Your task to perform on an android device: turn off priority inbox in the gmail app Image 0: 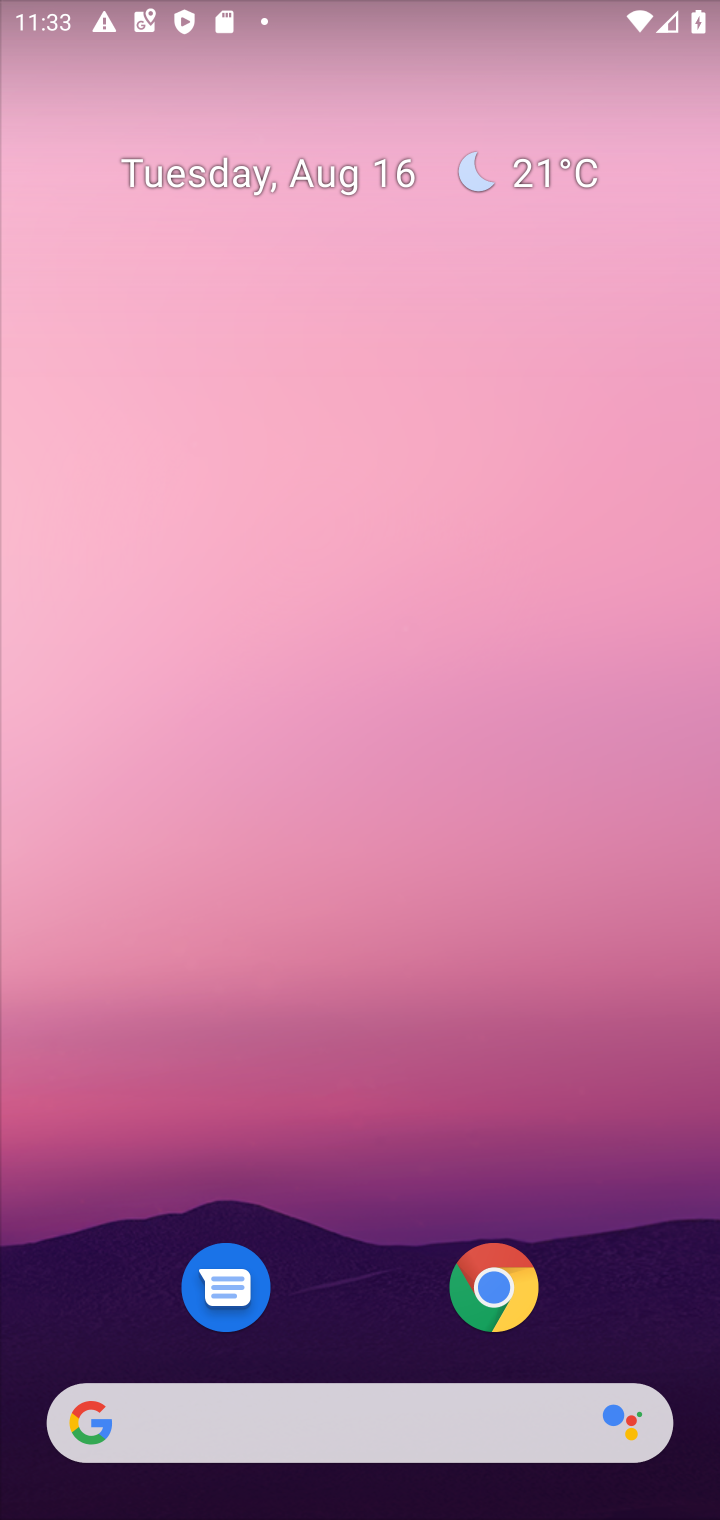
Step 0: drag from (656, 1325) to (561, 314)
Your task to perform on an android device: turn off priority inbox in the gmail app Image 1: 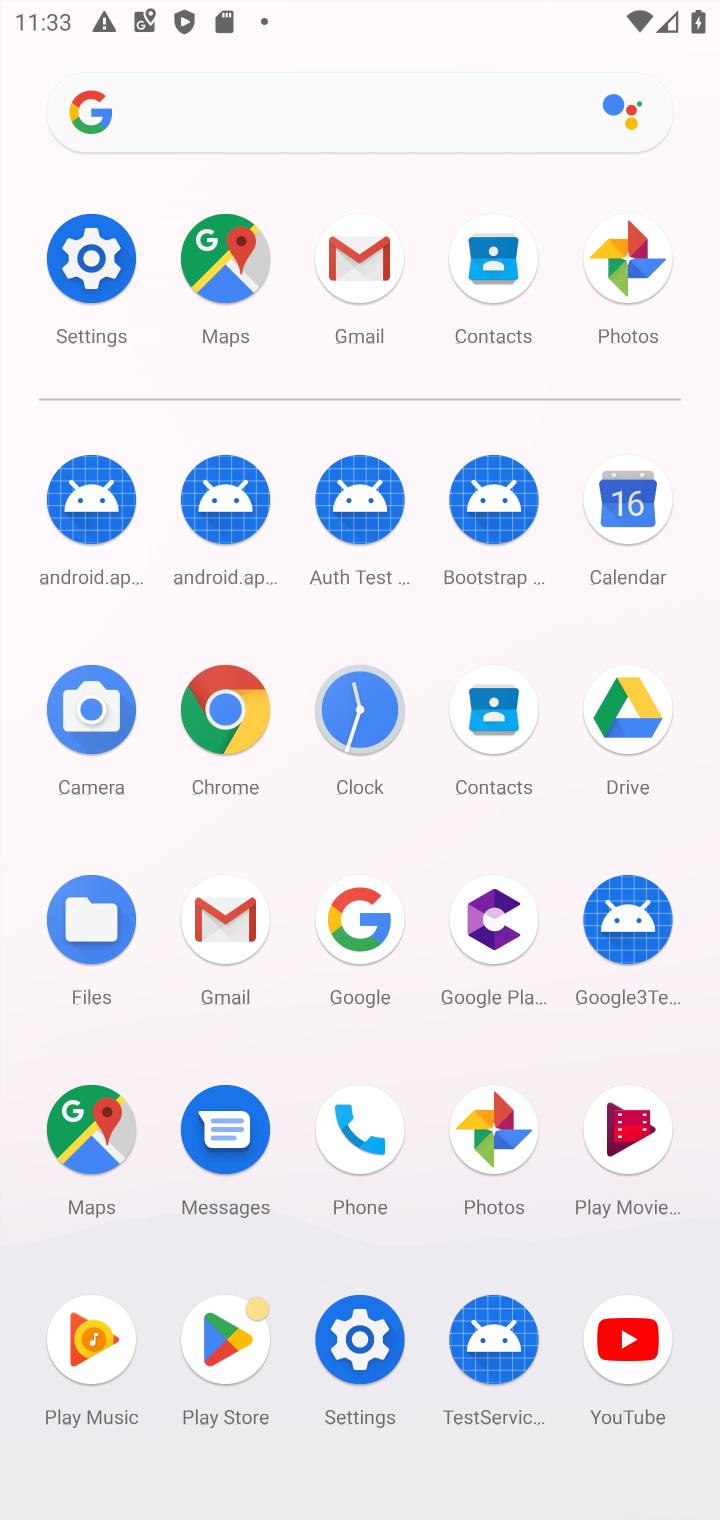
Step 1: click (222, 921)
Your task to perform on an android device: turn off priority inbox in the gmail app Image 2: 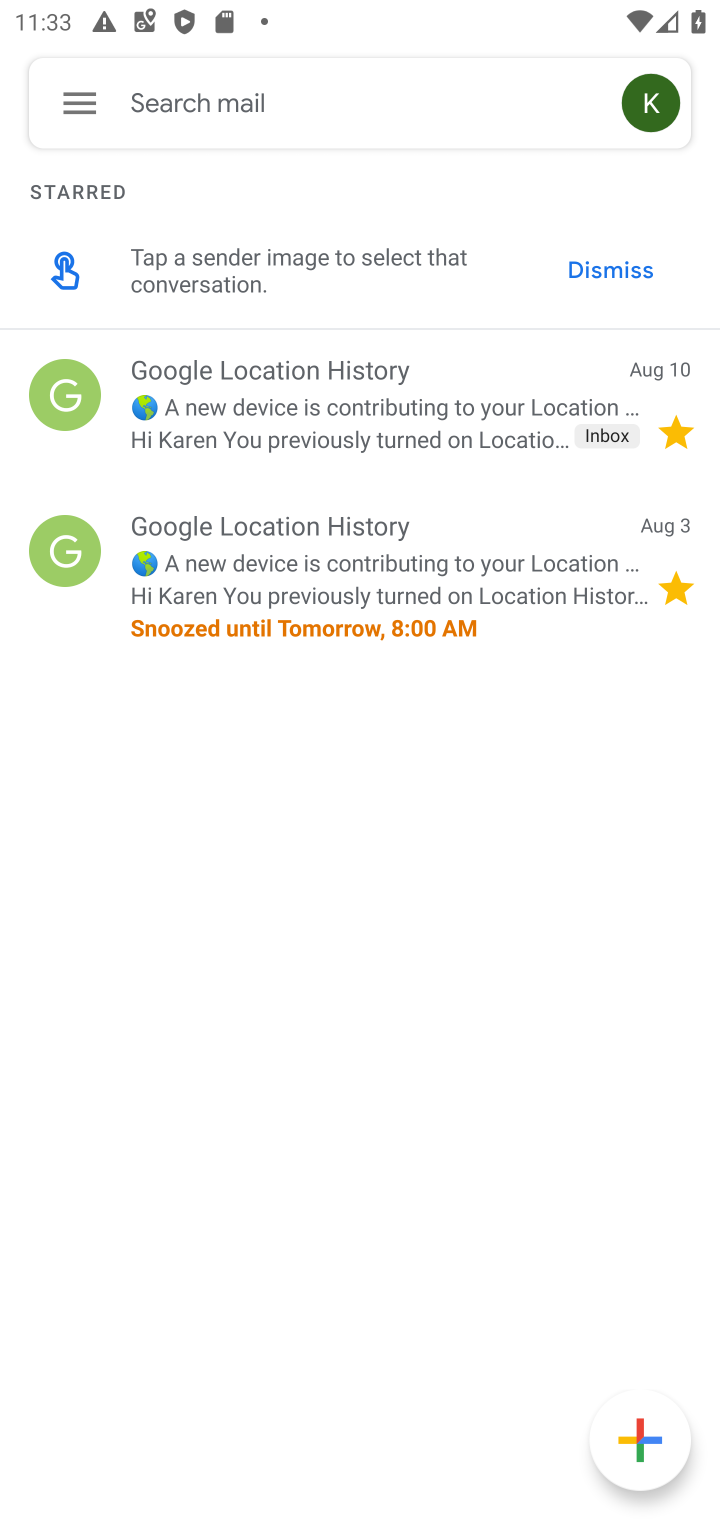
Step 2: click (70, 101)
Your task to perform on an android device: turn off priority inbox in the gmail app Image 3: 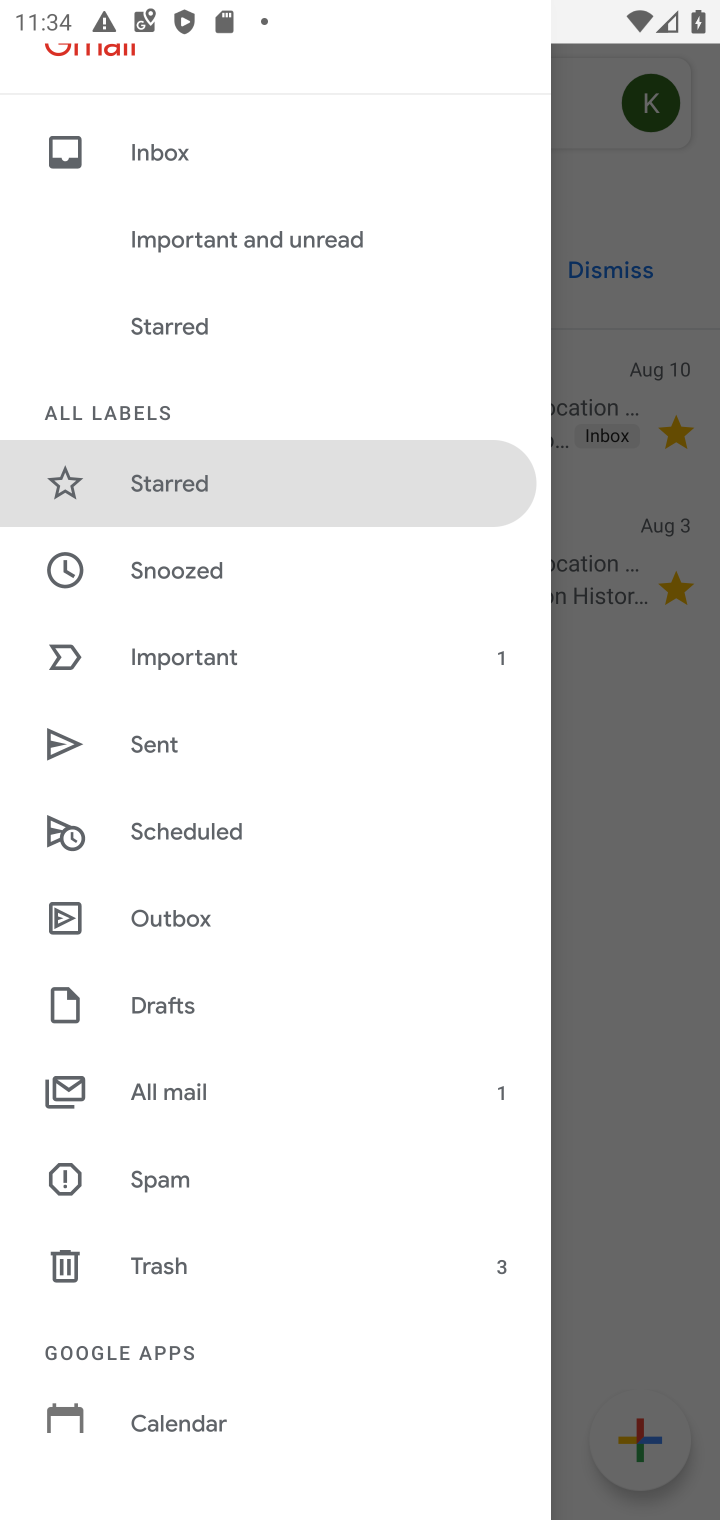
Step 3: drag from (300, 1419) to (384, 566)
Your task to perform on an android device: turn off priority inbox in the gmail app Image 4: 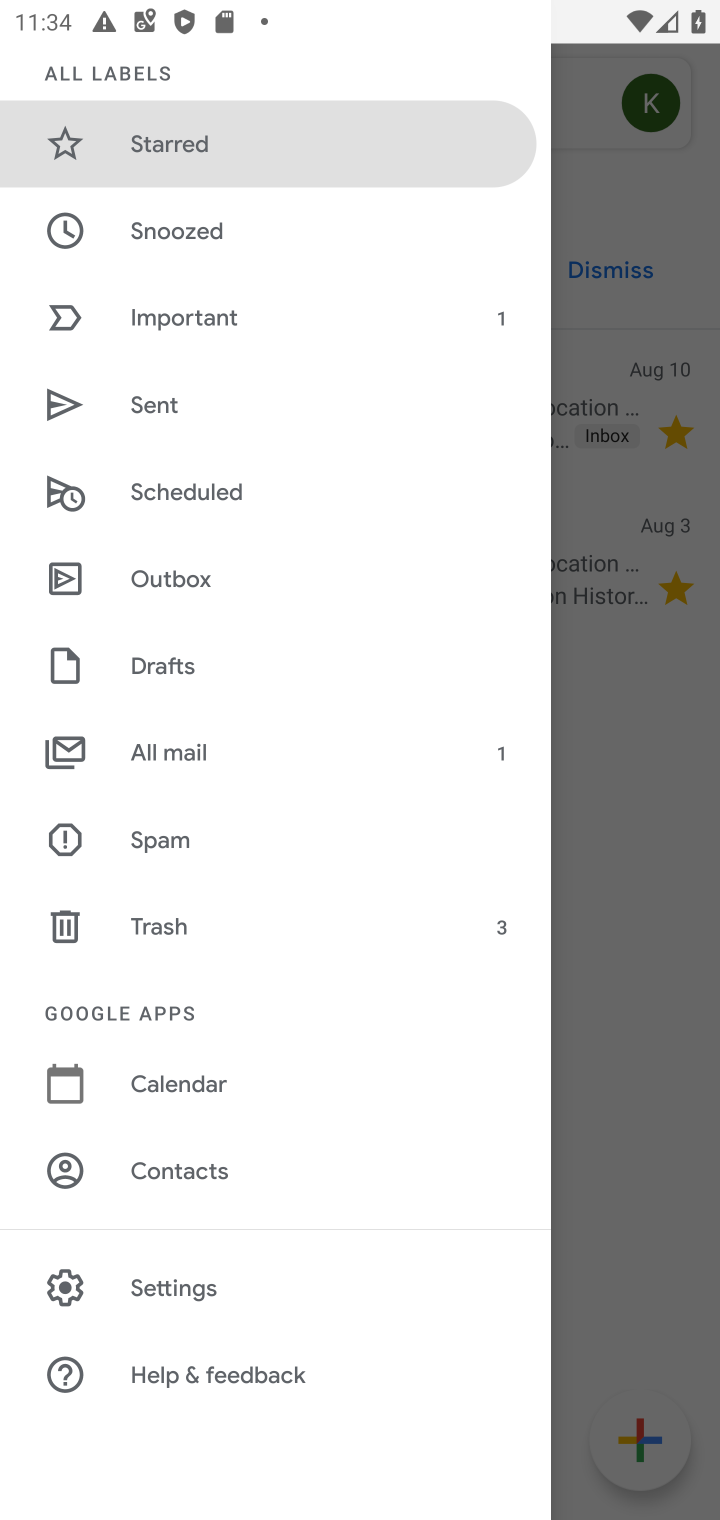
Step 4: click (182, 1280)
Your task to perform on an android device: turn off priority inbox in the gmail app Image 5: 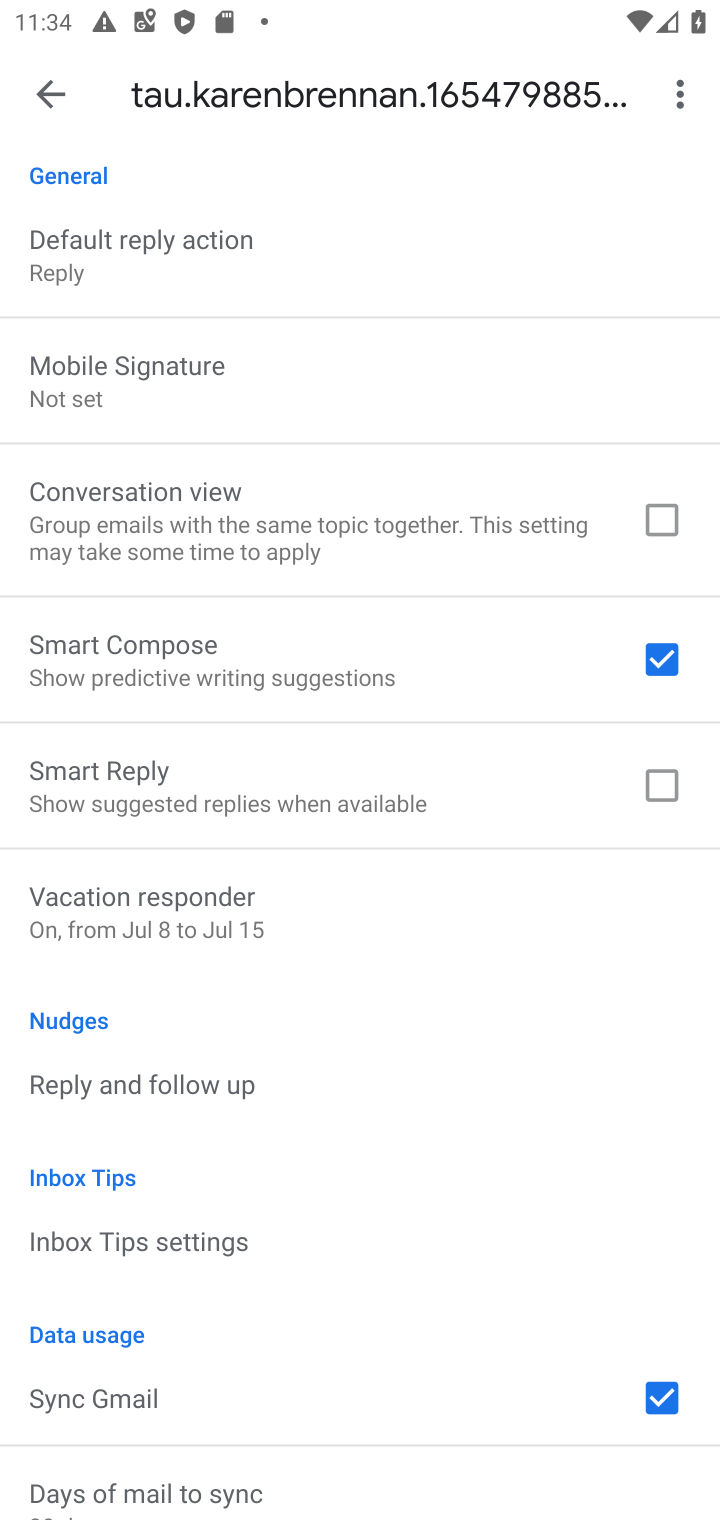
Step 5: drag from (467, 339) to (466, 1007)
Your task to perform on an android device: turn off priority inbox in the gmail app Image 6: 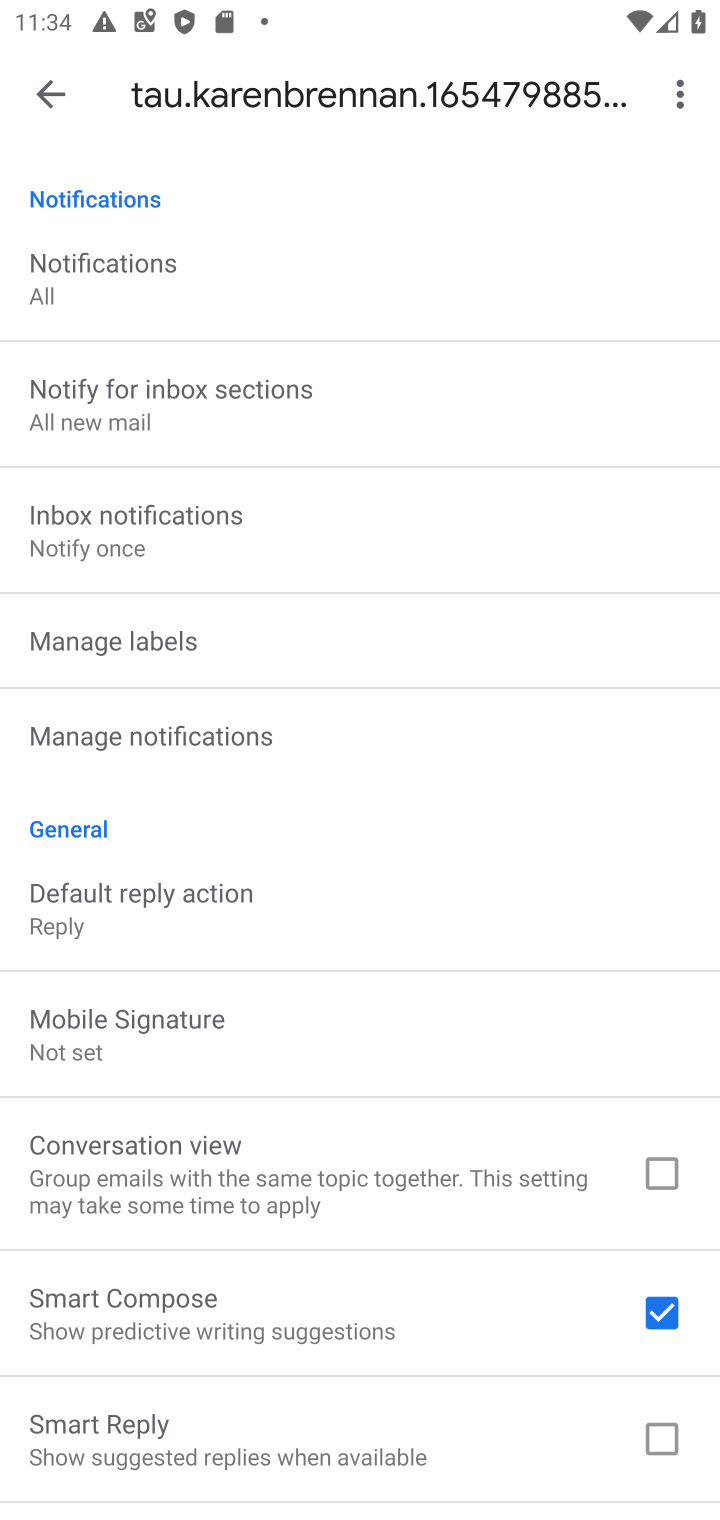
Step 6: drag from (478, 437) to (451, 824)
Your task to perform on an android device: turn off priority inbox in the gmail app Image 7: 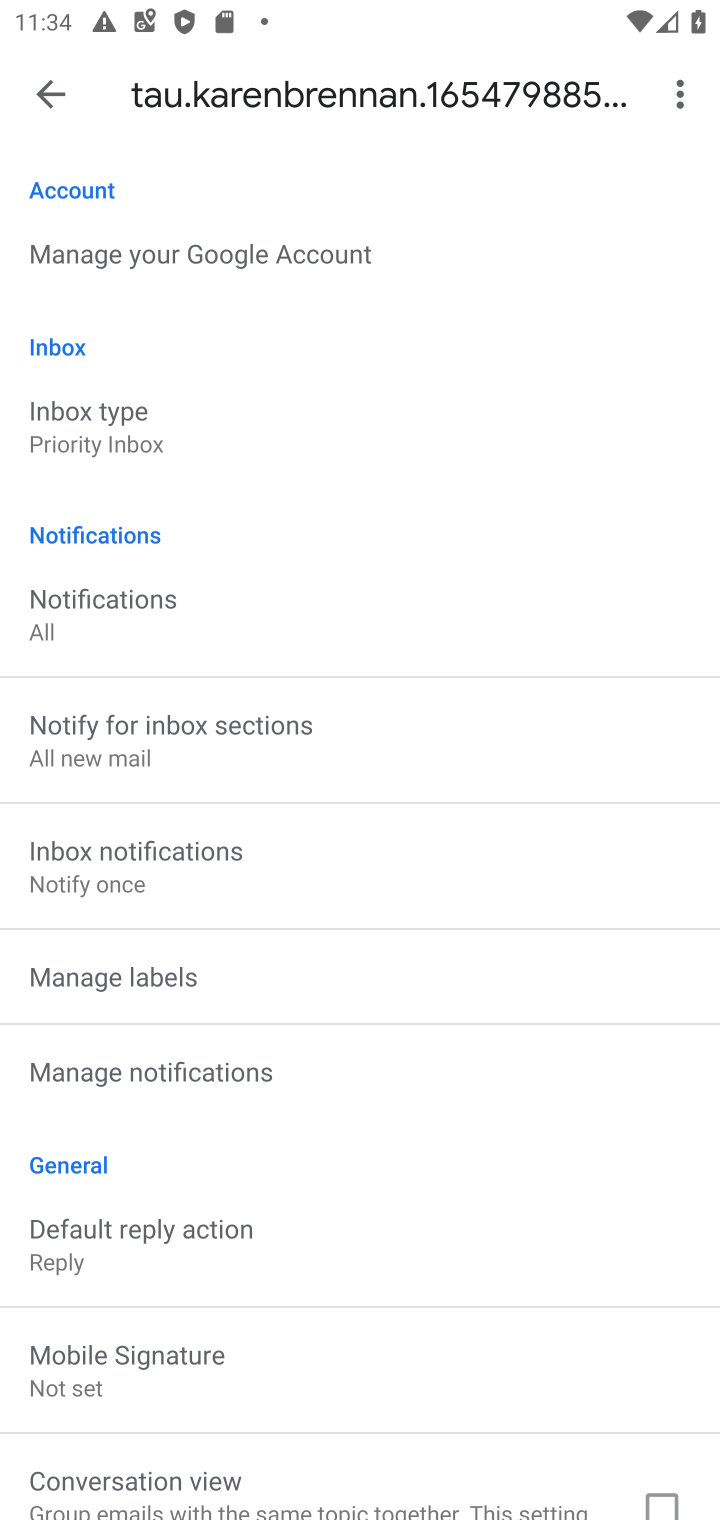
Step 7: click (41, 402)
Your task to perform on an android device: turn off priority inbox in the gmail app Image 8: 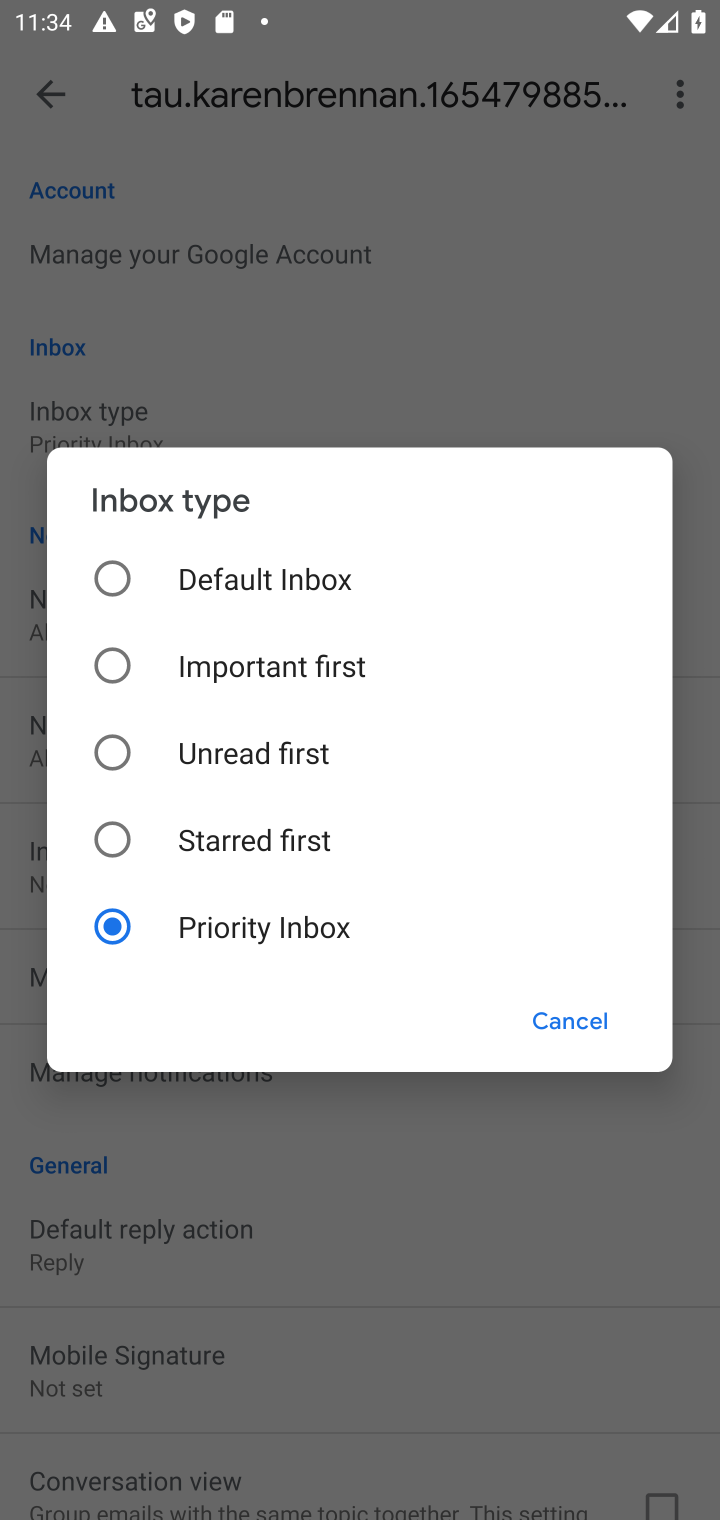
Step 8: click (107, 565)
Your task to perform on an android device: turn off priority inbox in the gmail app Image 9: 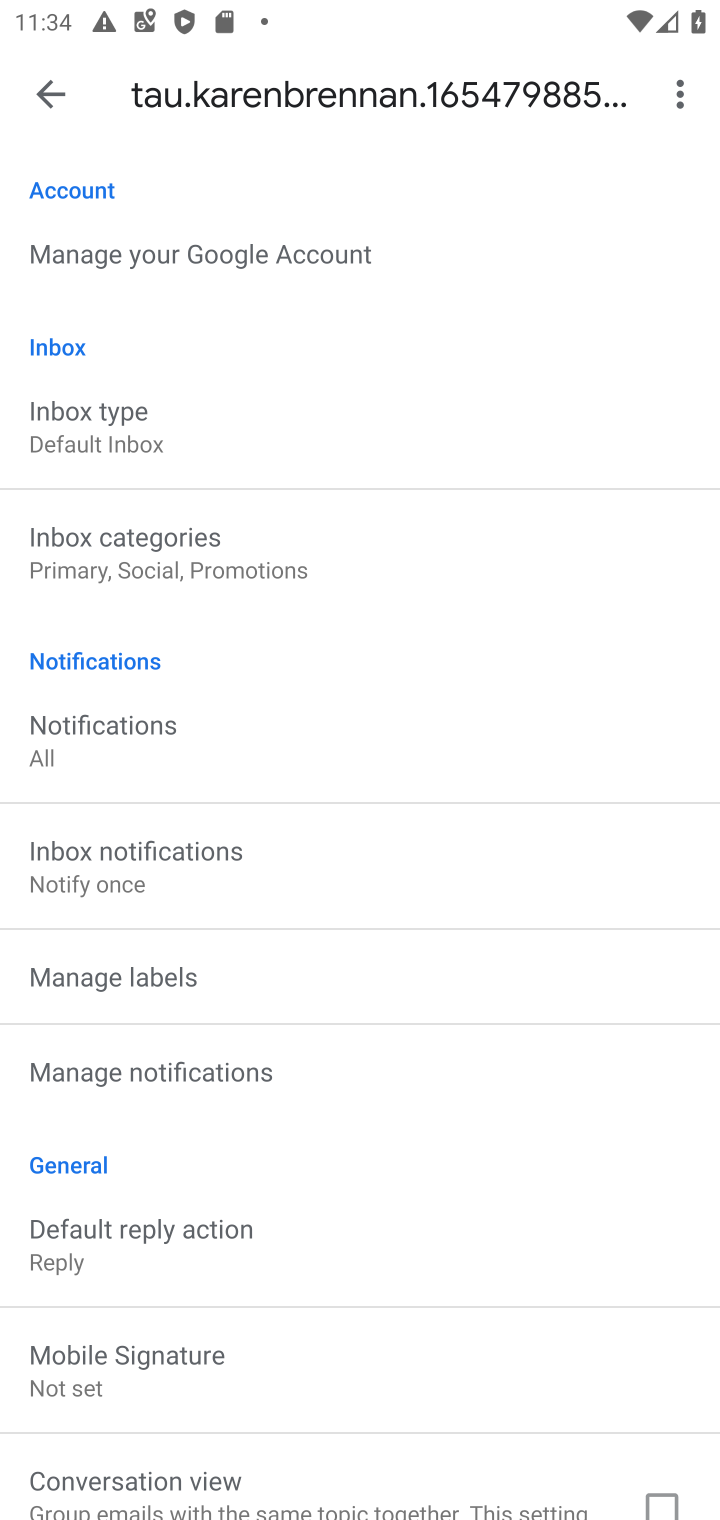
Step 9: task complete